Your task to perform on an android device: View the shopping cart on walmart. Search for jbl charge 4 on walmart, select the first entry, and add it to the cart. Image 0: 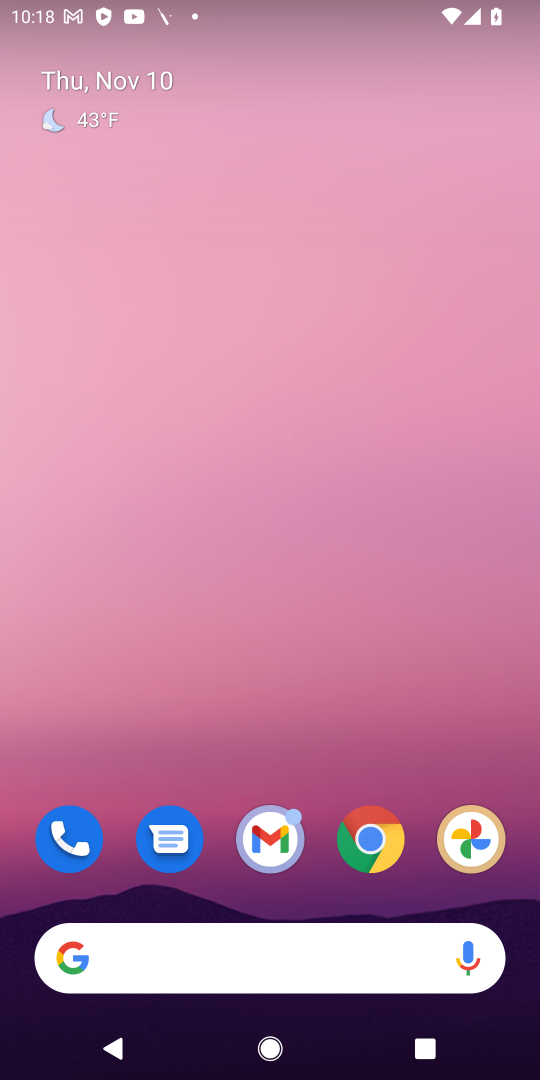
Step 0: click (382, 843)
Your task to perform on an android device: View the shopping cart on walmart. Search for jbl charge 4 on walmart, select the first entry, and add it to the cart. Image 1: 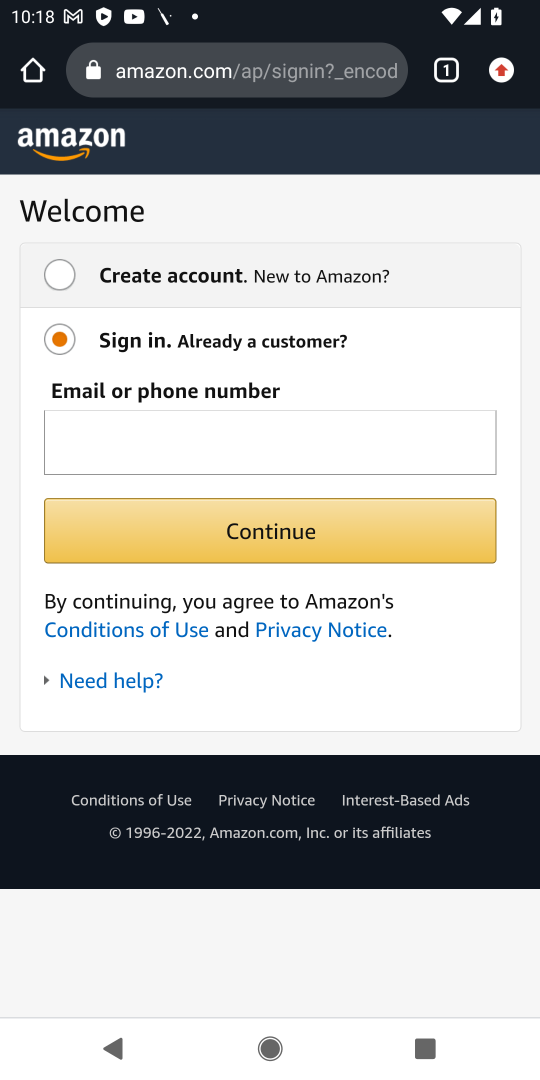
Step 1: click (310, 71)
Your task to perform on an android device: View the shopping cart on walmart. Search for jbl charge 4 on walmart, select the first entry, and add it to the cart. Image 2: 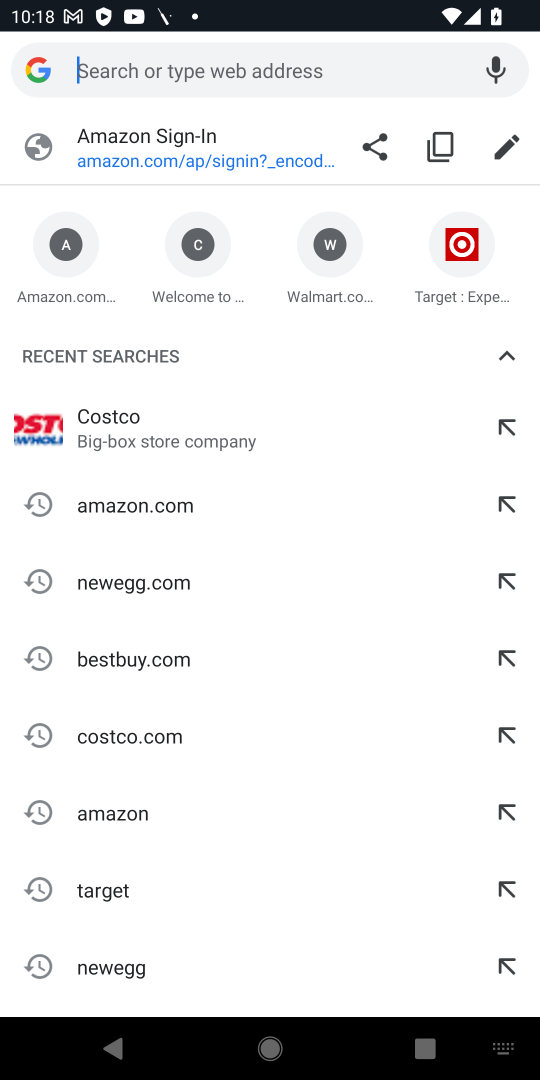
Step 2: drag from (160, 766) to (213, 394)
Your task to perform on an android device: View the shopping cart on walmart. Search for jbl charge 4 on walmart, select the first entry, and add it to the cart. Image 3: 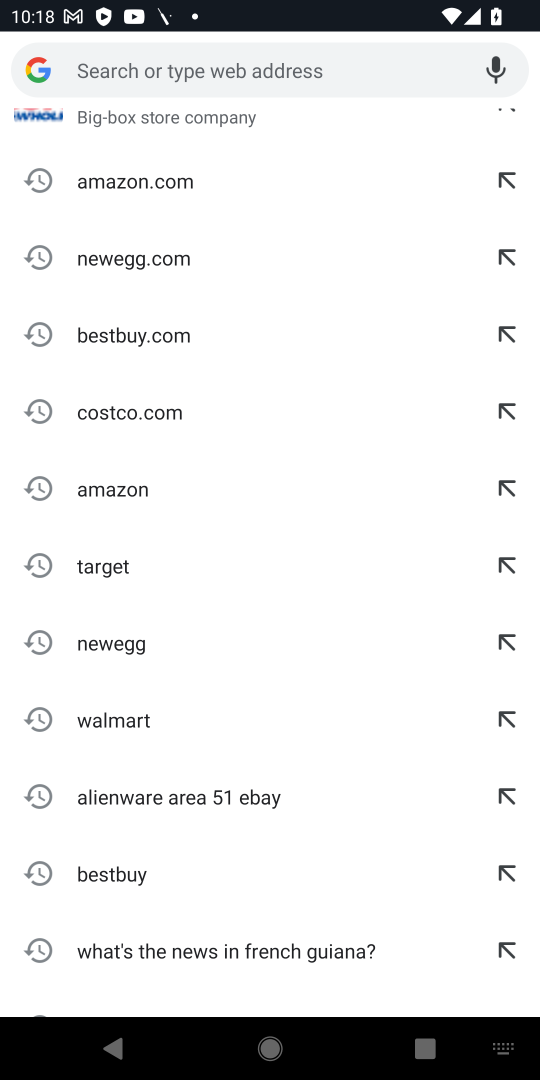
Step 3: click (129, 711)
Your task to perform on an android device: View the shopping cart on walmart. Search for jbl charge 4 on walmart, select the first entry, and add it to the cart. Image 4: 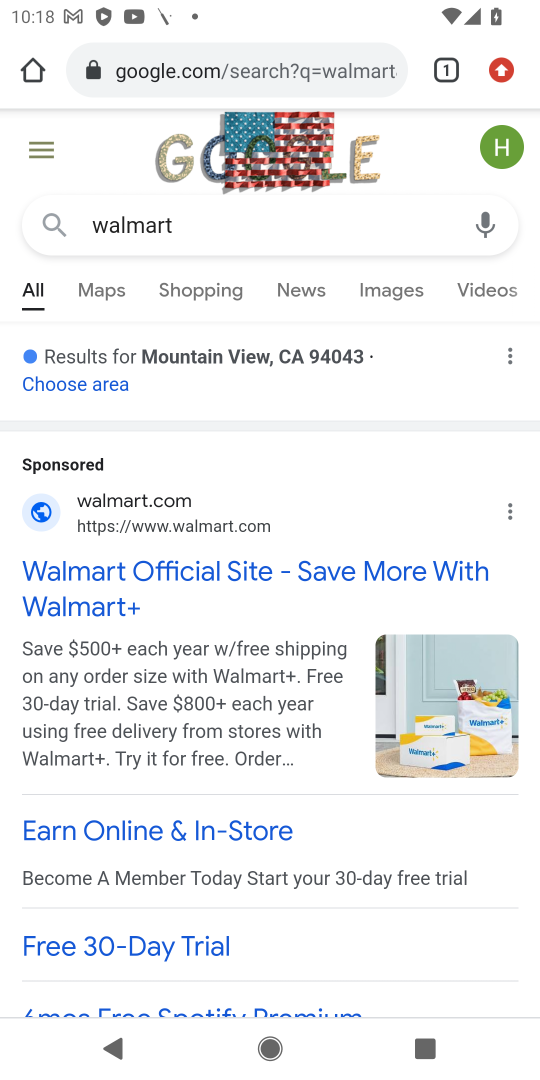
Step 4: click (201, 520)
Your task to perform on an android device: View the shopping cart on walmart. Search for jbl charge 4 on walmart, select the first entry, and add it to the cart. Image 5: 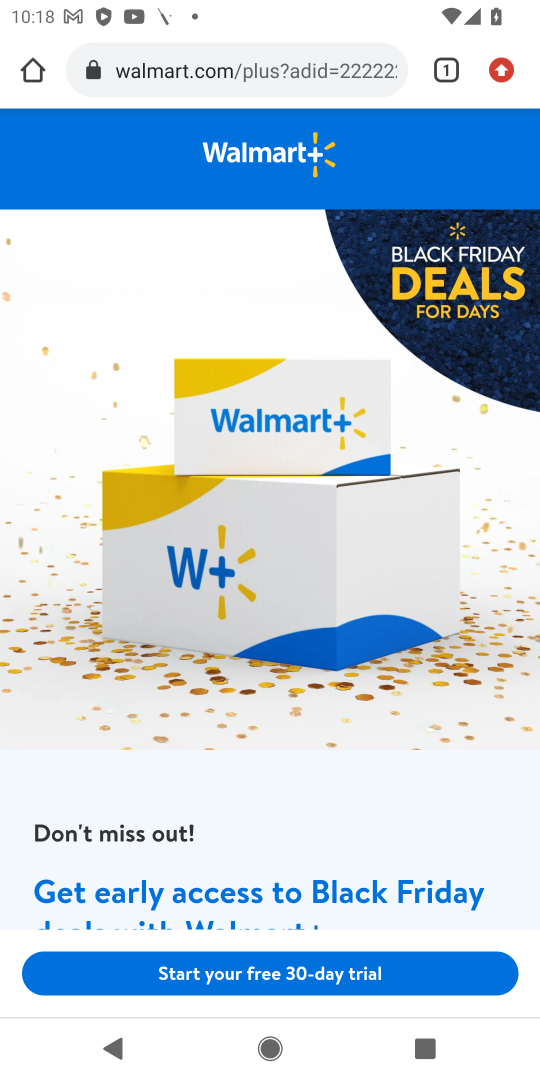
Step 5: press back button
Your task to perform on an android device: View the shopping cart on walmart. Search for jbl charge 4 on walmart, select the first entry, and add it to the cart. Image 6: 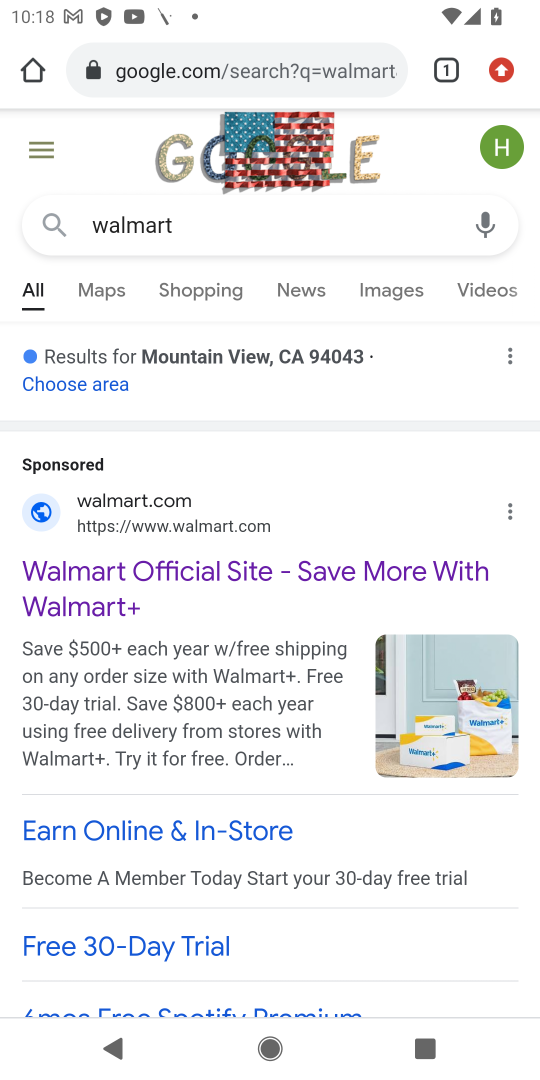
Step 6: click (195, 517)
Your task to perform on an android device: View the shopping cart on walmart. Search for jbl charge 4 on walmart, select the first entry, and add it to the cart. Image 7: 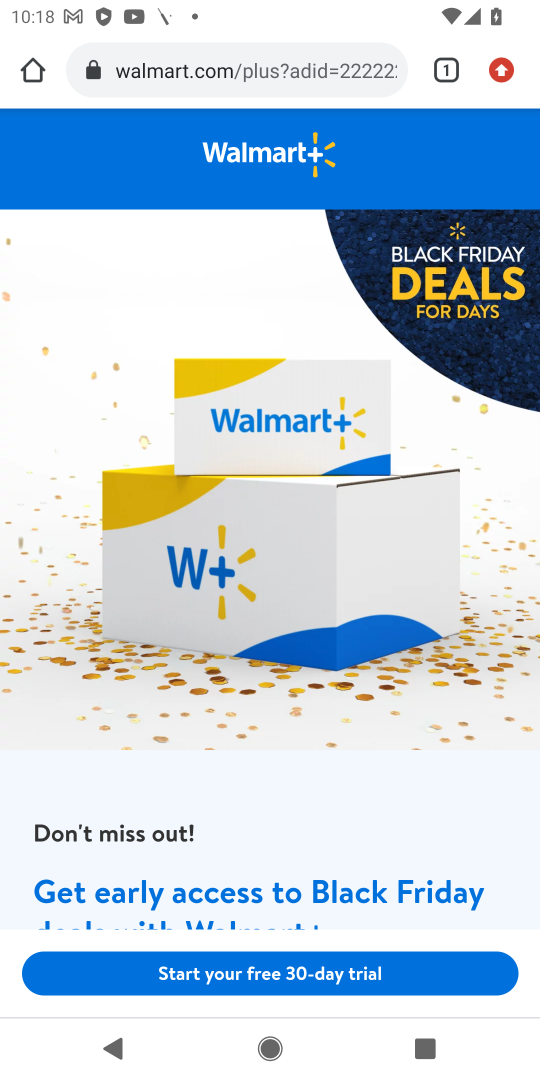
Step 7: press back button
Your task to perform on an android device: View the shopping cart on walmart. Search for jbl charge 4 on walmart, select the first entry, and add it to the cart. Image 8: 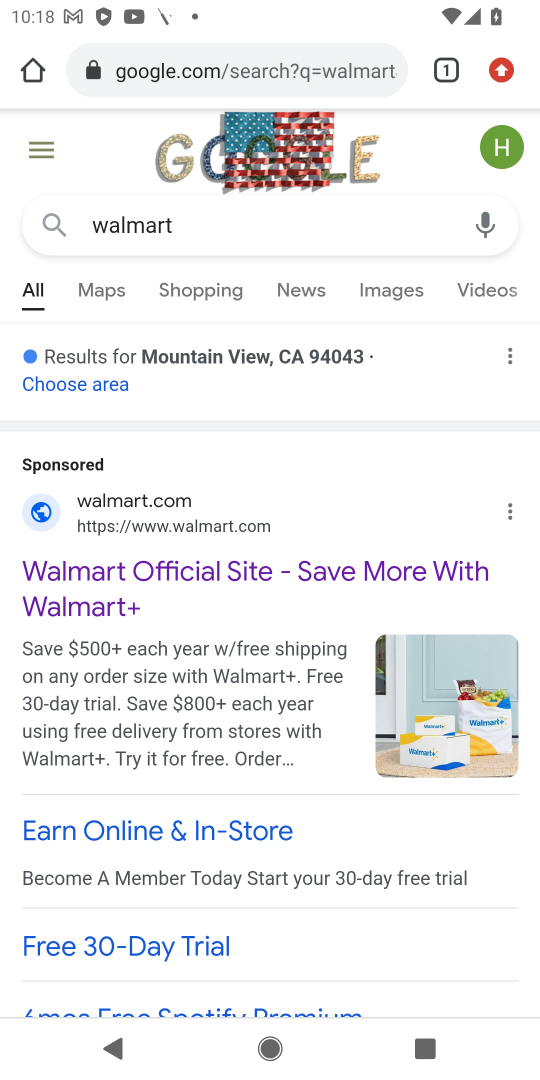
Step 8: drag from (228, 687) to (243, 290)
Your task to perform on an android device: View the shopping cart on walmart. Search for jbl charge 4 on walmart, select the first entry, and add it to the cart. Image 9: 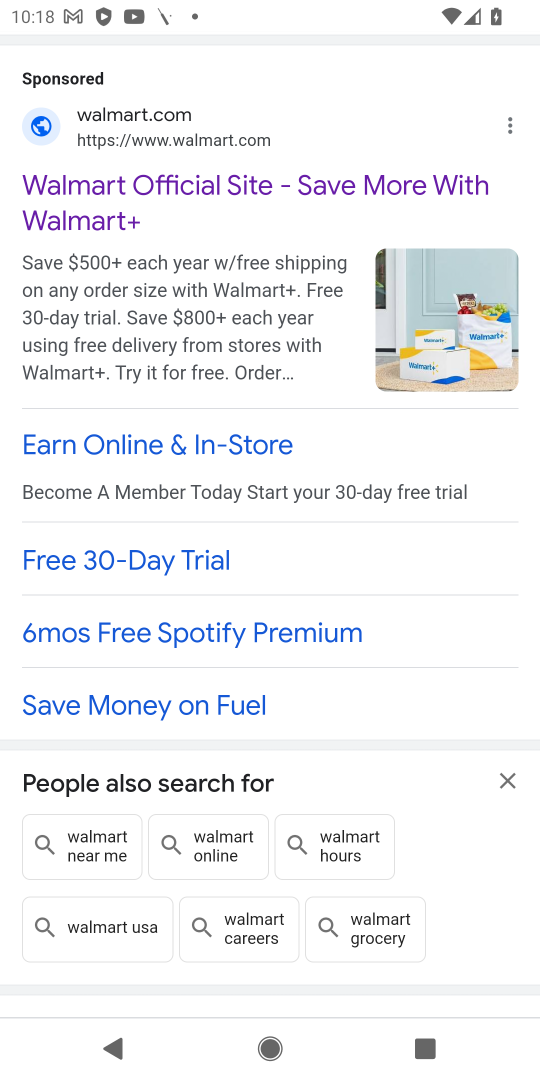
Step 9: drag from (253, 661) to (287, 388)
Your task to perform on an android device: View the shopping cart on walmart. Search for jbl charge 4 on walmart, select the first entry, and add it to the cart. Image 10: 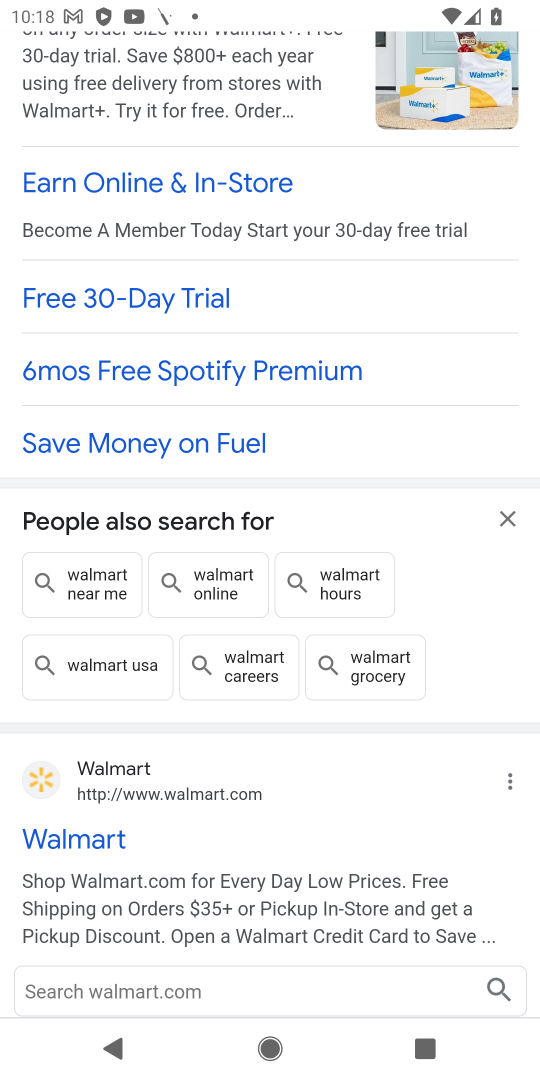
Step 10: click (211, 784)
Your task to perform on an android device: View the shopping cart on walmart. Search for jbl charge 4 on walmart, select the first entry, and add it to the cart. Image 11: 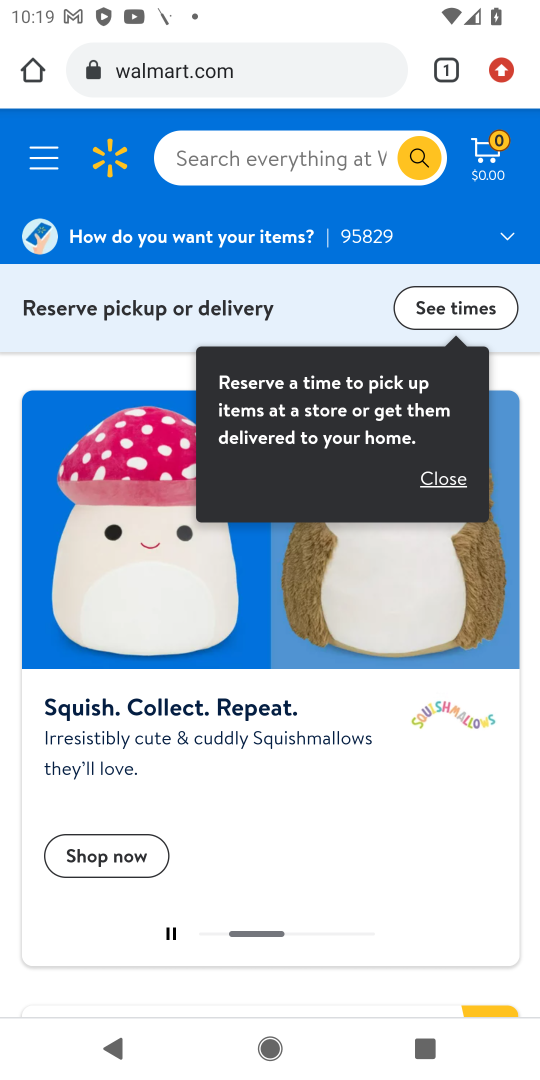
Step 11: click (282, 160)
Your task to perform on an android device: View the shopping cart on walmart. Search for jbl charge 4 on walmart, select the first entry, and add it to the cart. Image 12: 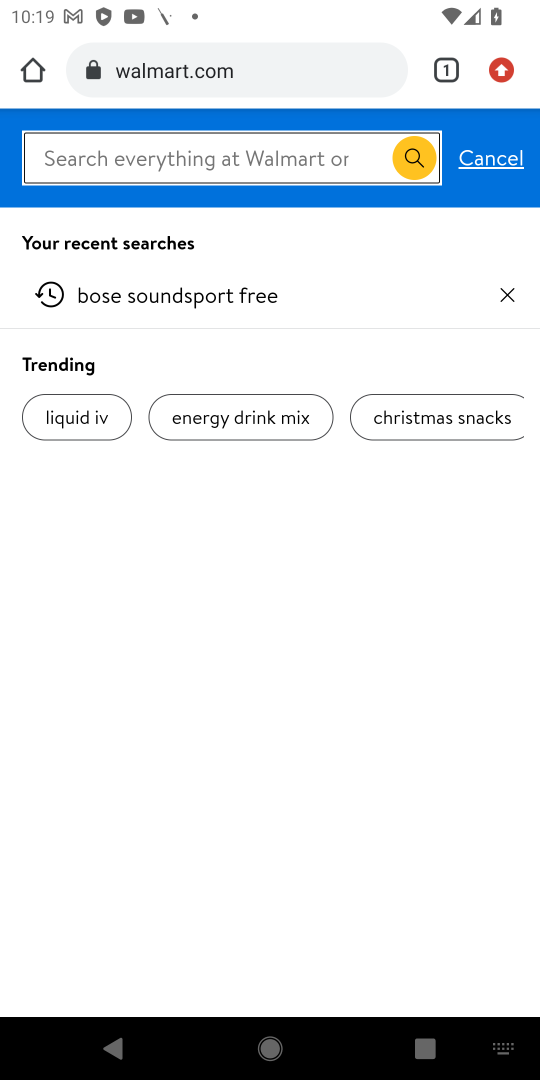
Step 12: type "jbl charge 4"
Your task to perform on an android device: View the shopping cart on walmart. Search for jbl charge 4 on walmart, select the first entry, and add it to the cart. Image 13: 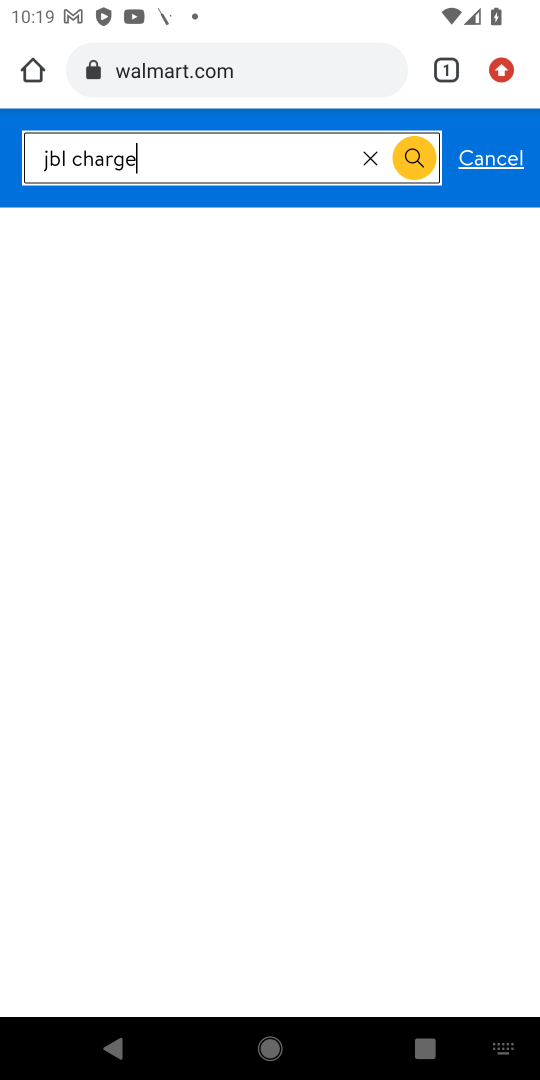
Step 13: press enter
Your task to perform on an android device: View the shopping cart on walmart. Search for jbl charge 4 on walmart, select the first entry, and add it to the cart. Image 14: 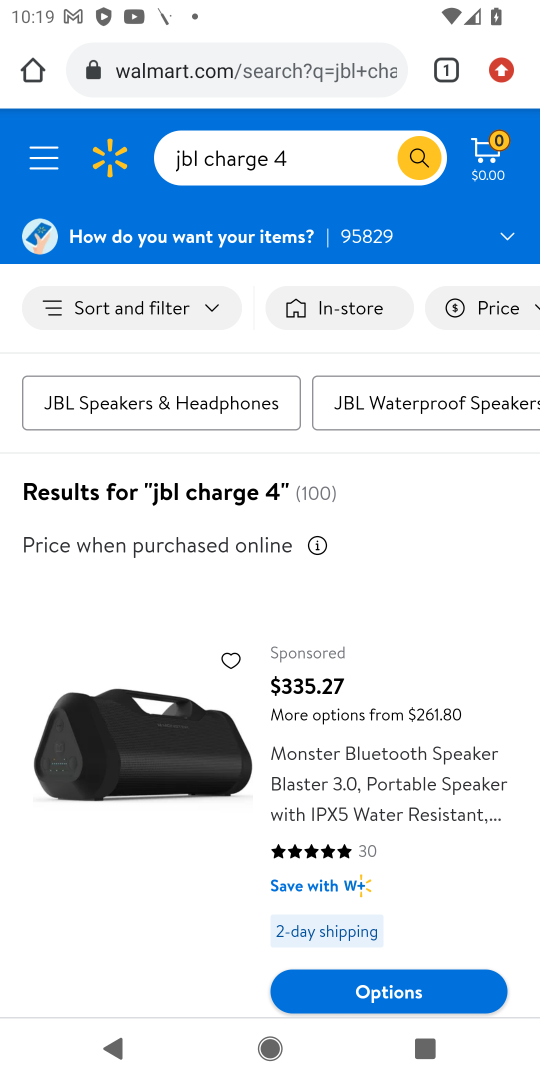
Step 14: drag from (146, 761) to (156, 438)
Your task to perform on an android device: View the shopping cart on walmart. Search for jbl charge 4 on walmart, select the first entry, and add it to the cart. Image 15: 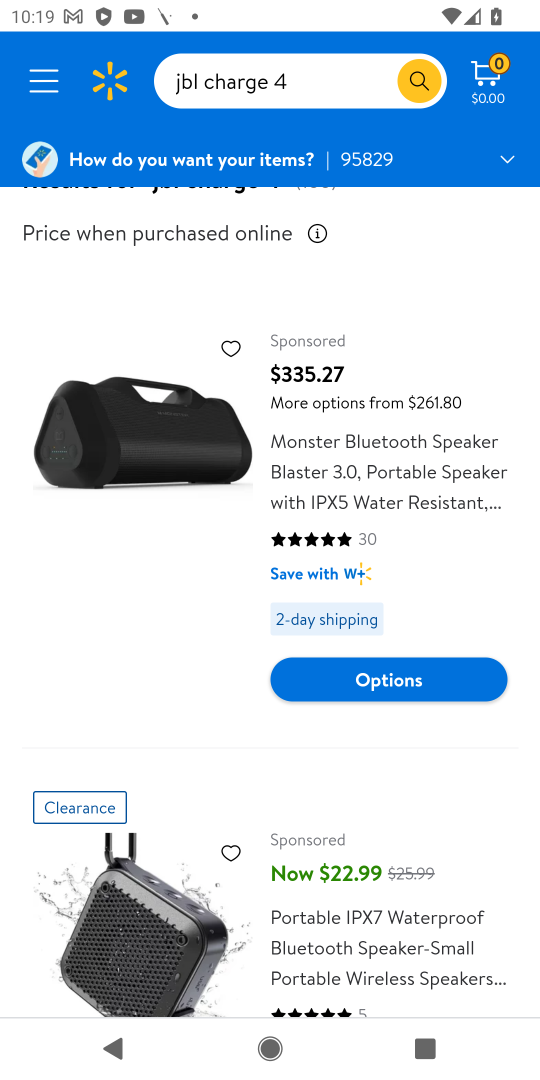
Step 15: drag from (152, 944) to (185, 506)
Your task to perform on an android device: View the shopping cart on walmart. Search for jbl charge 4 on walmart, select the first entry, and add it to the cart. Image 16: 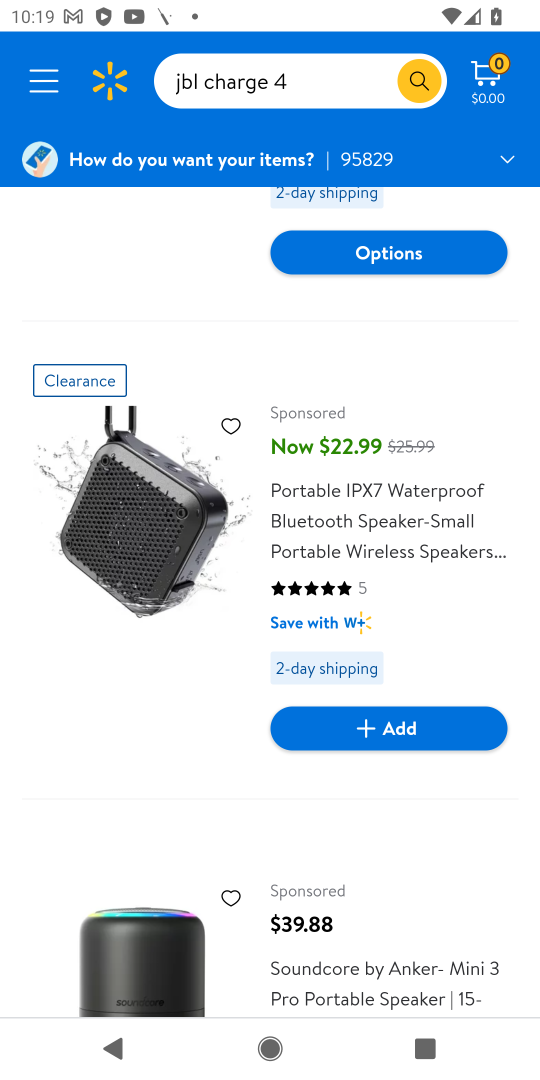
Step 16: drag from (176, 918) to (187, 429)
Your task to perform on an android device: View the shopping cart on walmart. Search for jbl charge 4 on walmart, select the first entry, and add it to the cart. Image 17: 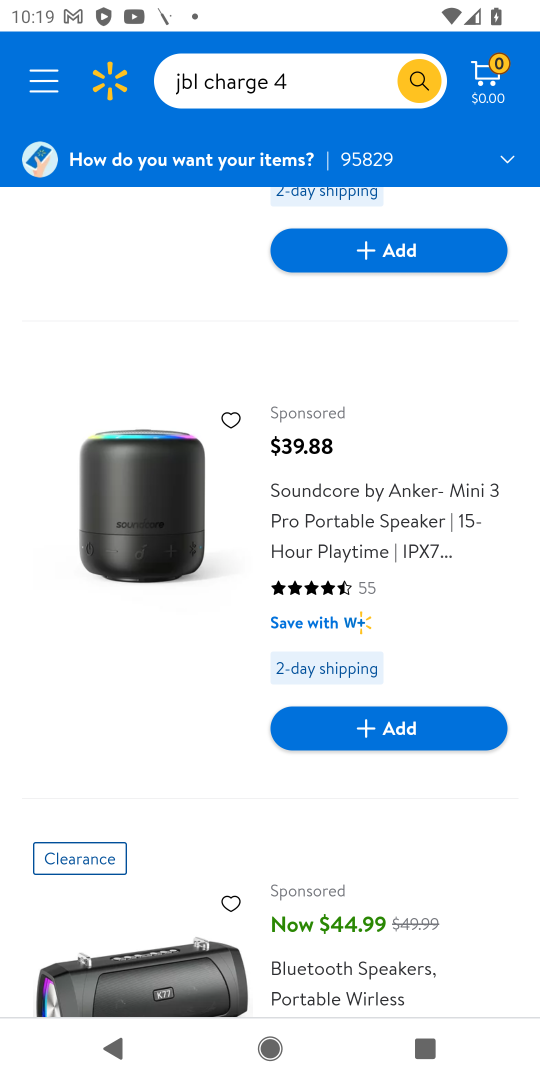
Step 17: drag from (137, 878) to (171, 466)
Your task to perform on an android device: View the shopping cart on walmart. Search for jbl charge 4 on walmart, select the first entry, and add it to the cart. Image 18: 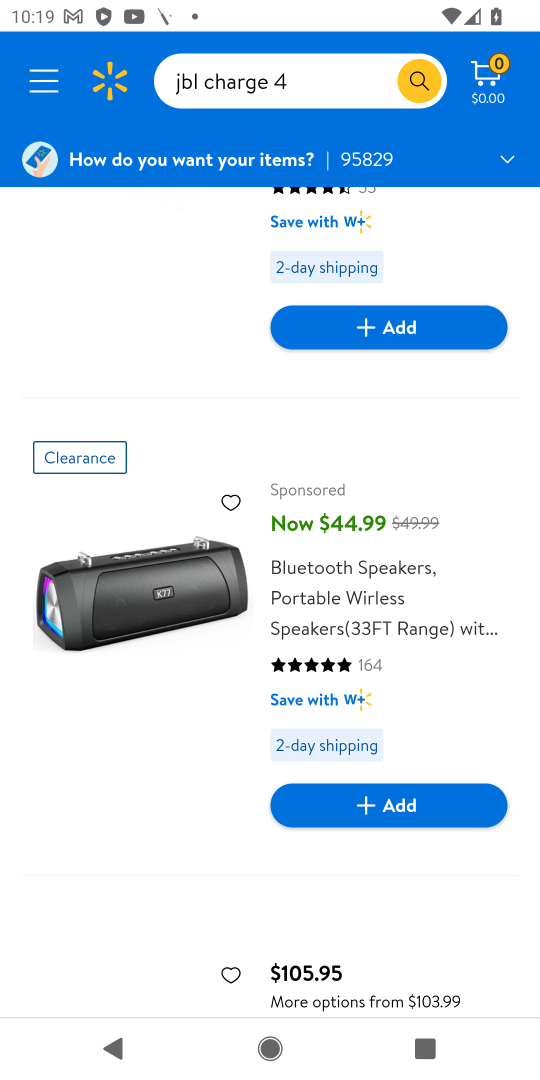
Step 18: drag from (172, 763) to (223, 389)
Your task to perform on an android device: View the shopping cart on walmart. Search for jbl charge 4 on walmart, select the first entry, and add it to the cart. Image 19: 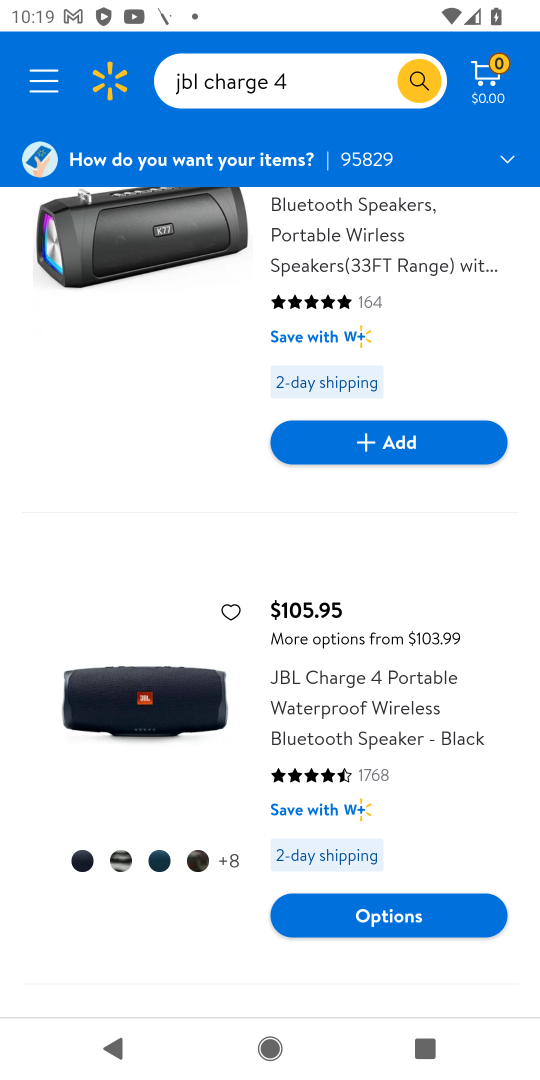
Step 19: click (113, 699)
Your task to perform on an android device: View the shopping cart on walmart. Search for jbl charge 4 on walmart, select the first entry, and add it to the cart. Image 20: 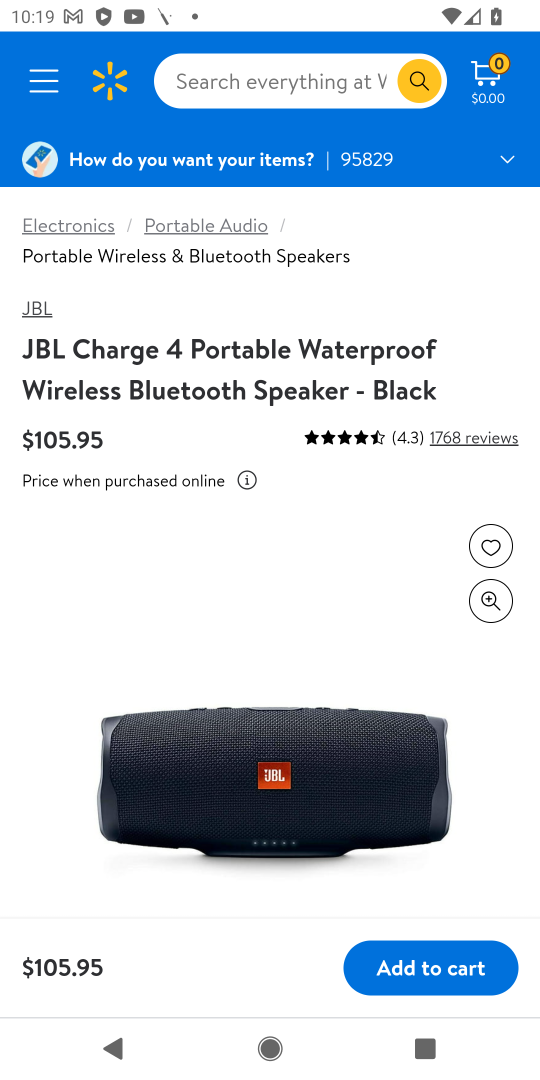
Step 20: click (423, 978)
Your task to perform on an android device: View the shopping cart on walmart. Search for jbl charge 4 on walmart, select the first entry, and add it to the cart. Image 21: 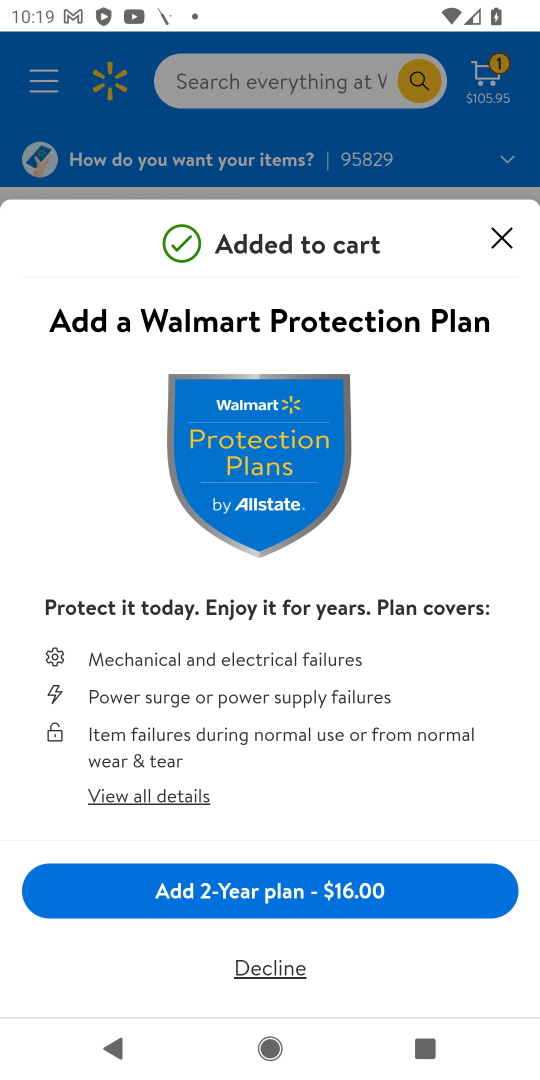
Step 21: click (507, 243)
Your task to perform on an android device: View the shopping cart on walmart. Search for jbl charge 4 on walmart, select the first entry, and add it to the cart. Image 22: 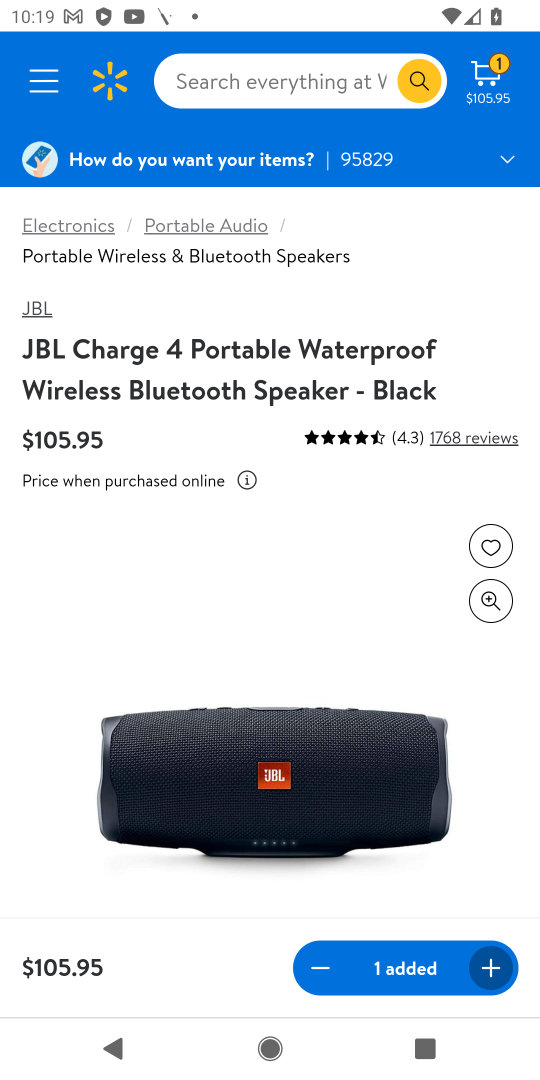
Step 22: task complete